Your task to perform on an android device: add a contact Image 0: 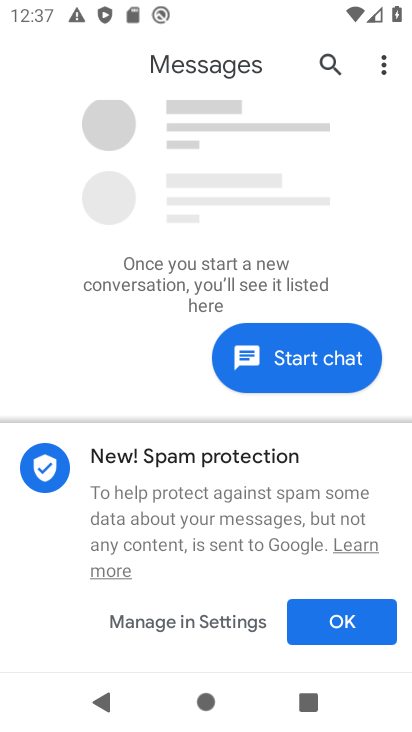
Step 0: press home button
Your task to perform on an android device: add a contact Image 1: 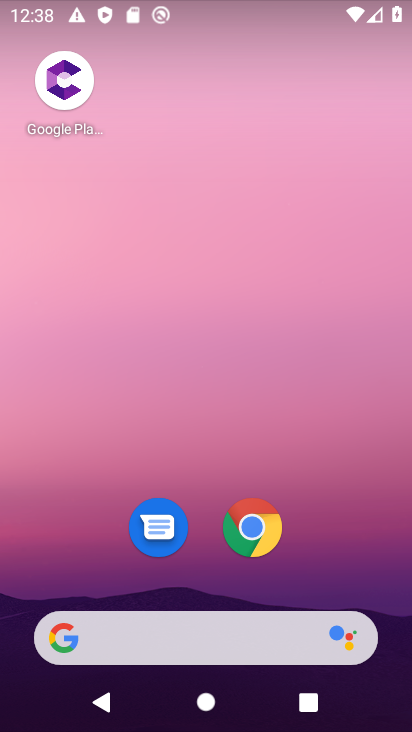
Step 1: drag from (351, 539) to (242, 60)
Your task to perform on an android device: add a contact Image 2: 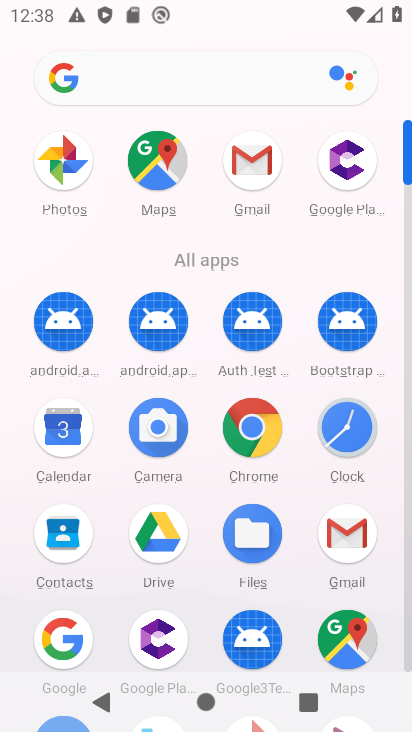
Step 2: click (61, 541)
Your task to perform on an android device: add a contact Image 3: 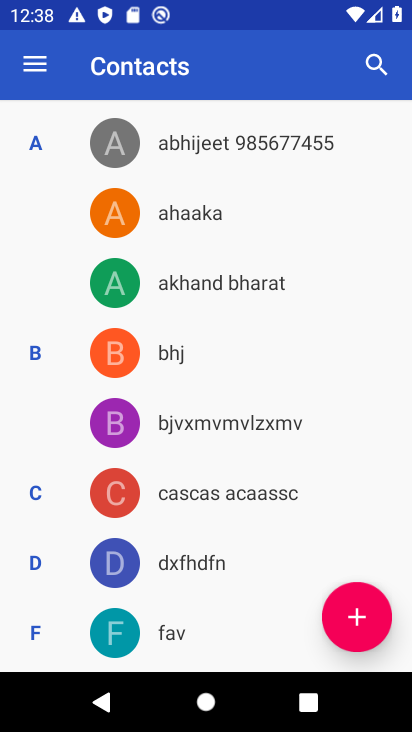
Step 3: click (356, 608)
Your task to perform on an android device: add a contact Image 4: 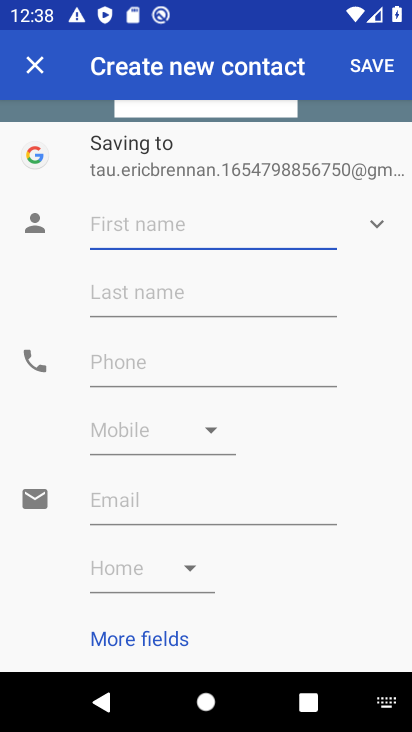
Step 4: type "bhjki"
Your task to perform on an android device: add a contact Image 5: 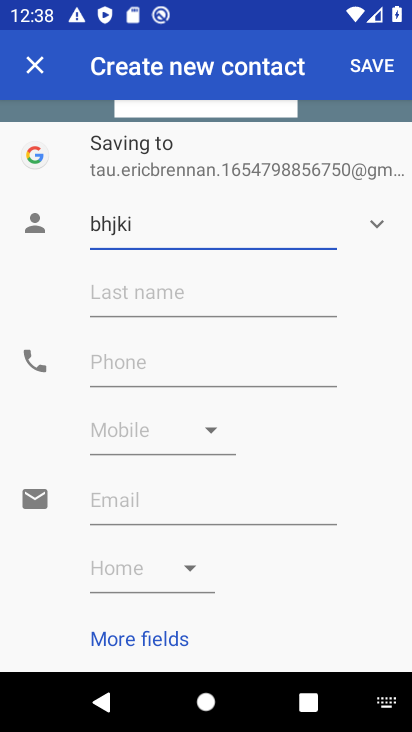
Step 5: click (156, 355)
Your task to perform on an android device: add a contact Image 6: 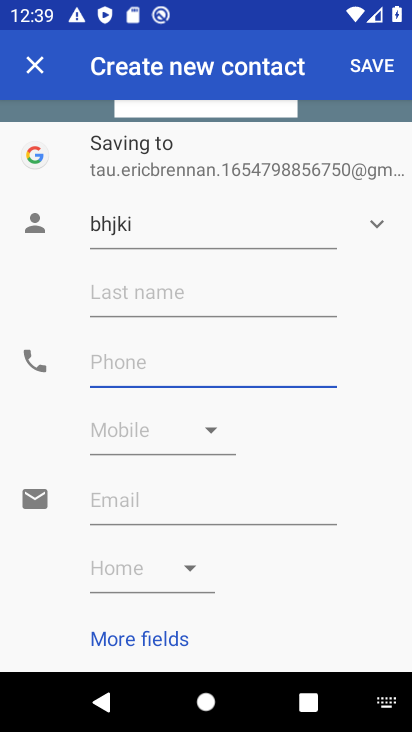
Step 6: type "7654321980"
Your task to perform on an android device: add a contact Image 7: 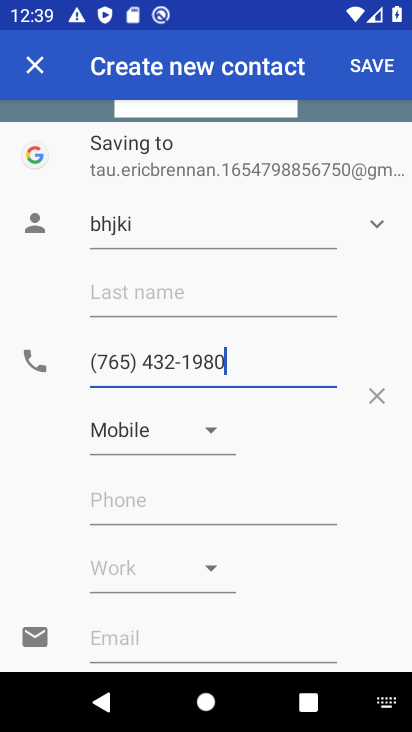
Step 7: click (385, 58)
Your task to perform on an android device: add a contact Image 8: 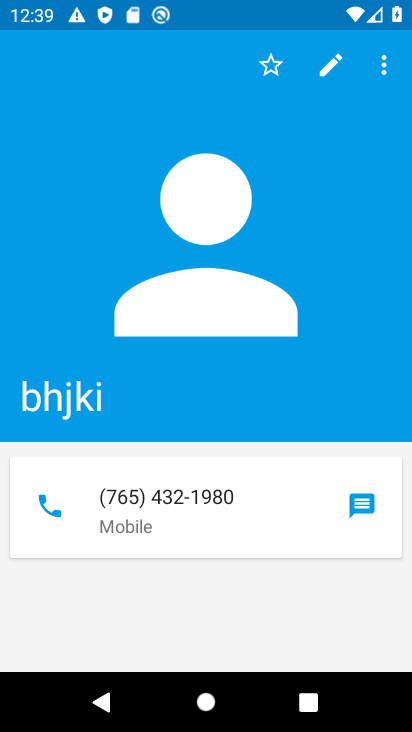
Step 8: task complete